Your task to perform on an android device: Open Youtube and go to the subscriptions tab Image 0: 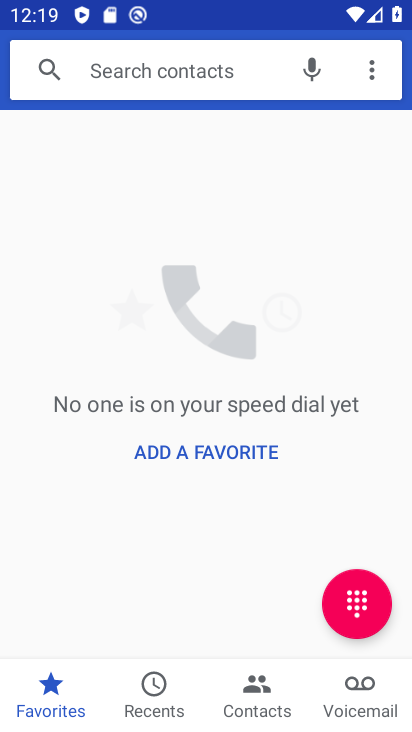
Step 0: press home button
Your task to perform on an android device: Open Youtube and go to the subscriptions tab Image 1: 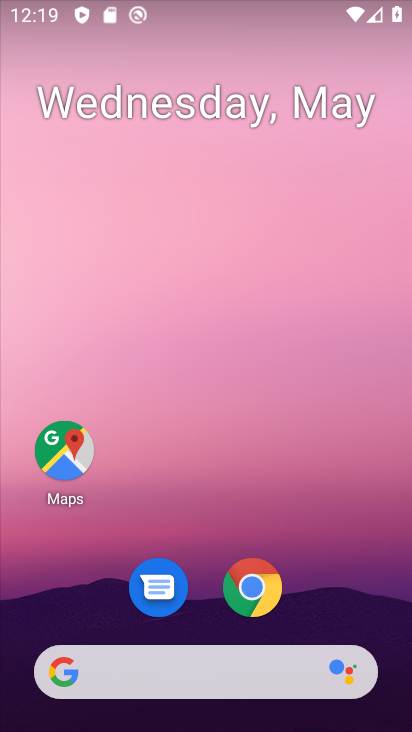
Step 1: drag from (100, 634) to (185, 164)
Your task to perform on an android device: Open Youtube and go to the subscriptions tab Image 2: 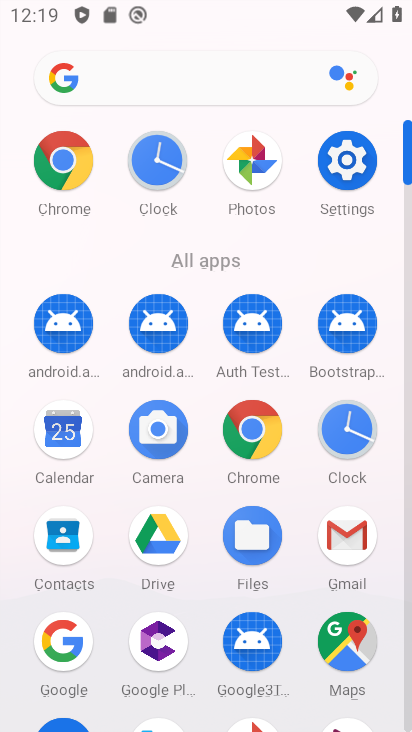
Step 2: drag from (182, 610) to (223, 390)
Your task to perform on an android device: Open Youtube and go to the subscriptions tab Image 3: 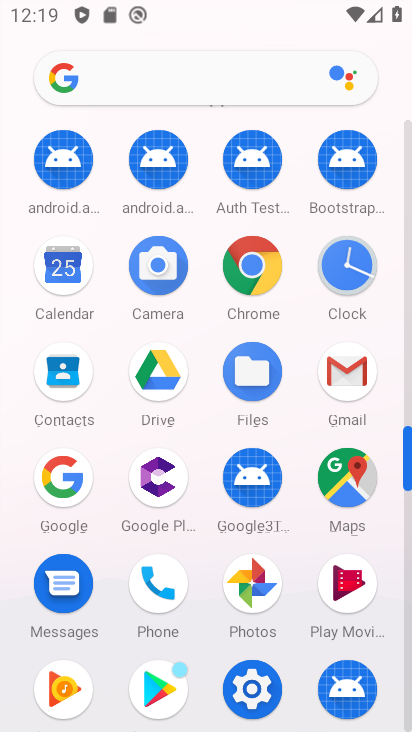
Step 3: drag from (185, 647) to (227, 466)
Your task to perform on an android device: Open Youtube and go to the subscriptions tab Image 4: 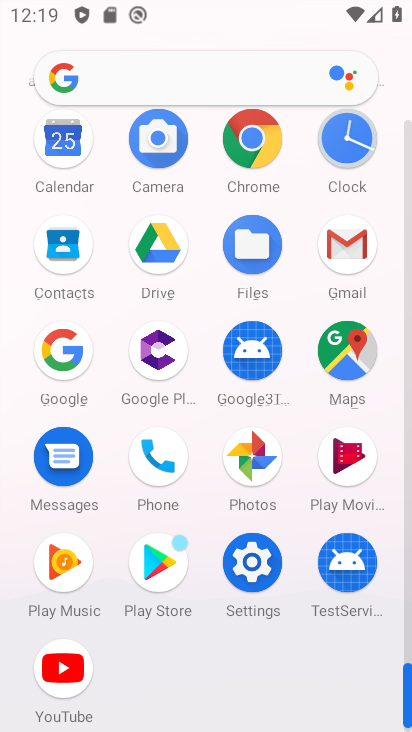
Step 4: click (56, 686)
Your task to perform on an android device: Open Youtube and go to the subscriptions tab Image 5: 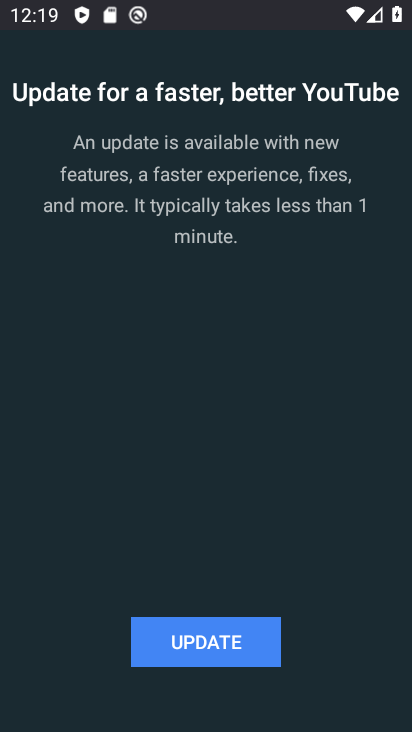
Step 5: click (235, 655)
Your task to perform on an android device: Open Youtube and go to the subscriptions tab Image 6: 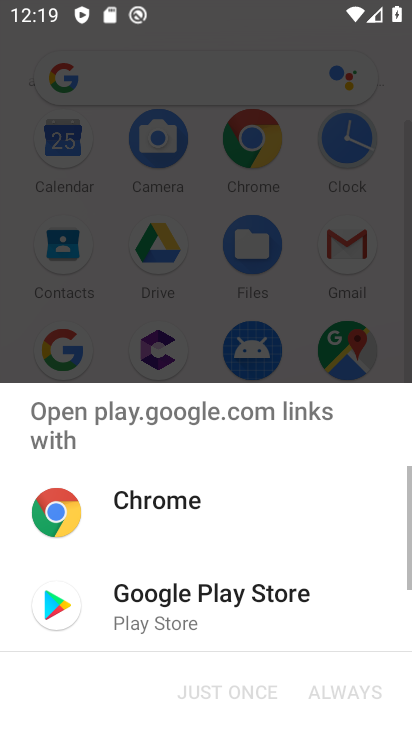
Step 6: click (234, 616)
Your task to perform on an android device: Open Youtube and go to the subscriptions tab Image 7: 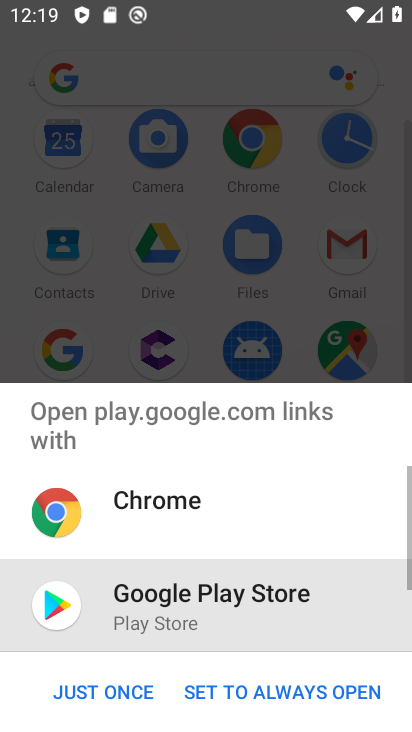
Step 7: click (97, 691)
Your task to perform on an android device: Open Youtube and go to the subscriptions tab Image 8: 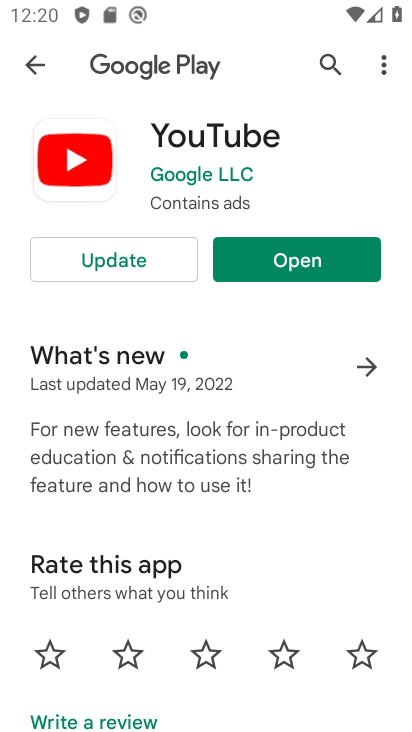
Step 8: click (98, 272)
Your task to perform on an android device: Open Youtube and go to the subscriptions tab Image 9: 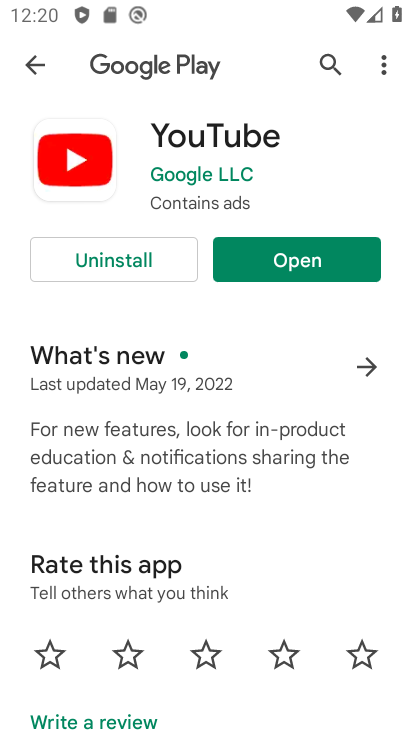
Step 9: click (299, 262)
Your task to perform on an android device: Open Youtube and go to the subscriptions tab Image 10: 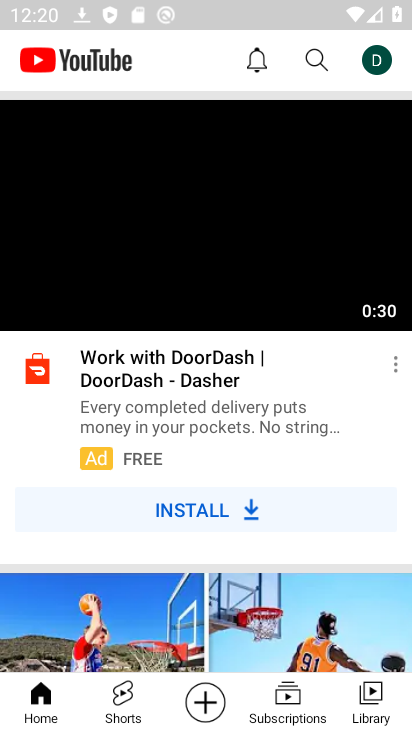
Step 10: click (315, 706)
Your task to perform on an android device: Open Youtube and go to the subscriptions tab Image 11: 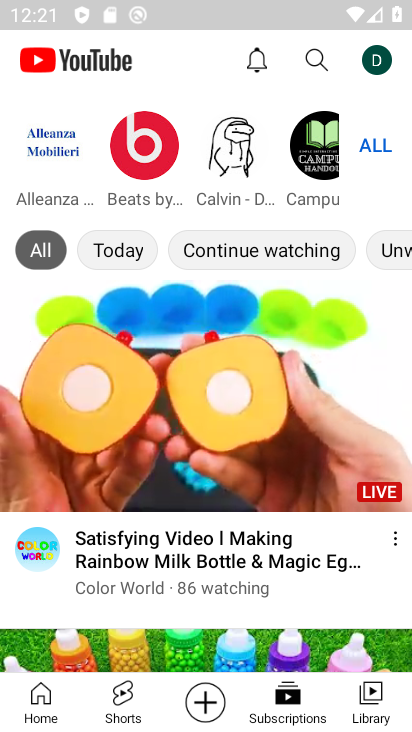
Step 11: task complete